Your task to perform on an android device: Go to location settings Image 0: 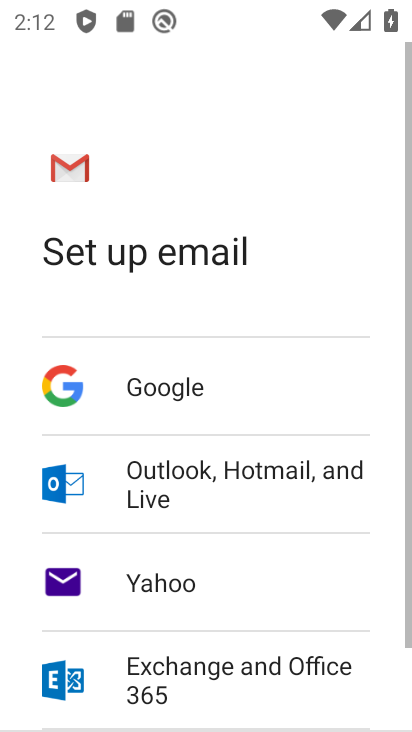
Step 0: press home button
Your task to perform on an android device: Go to location settings Image 1: 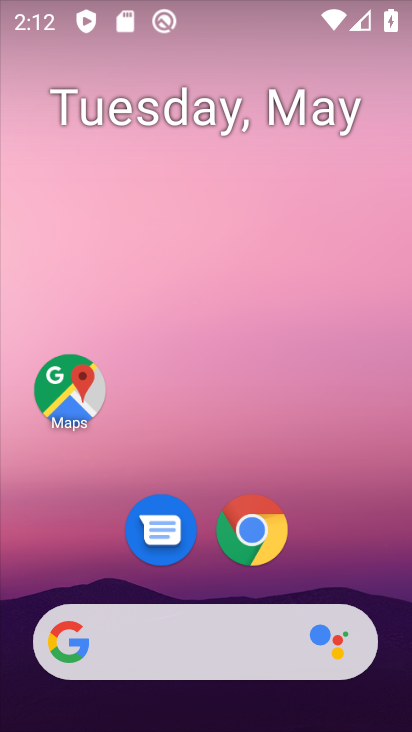
Step 1: drag from (206, 571) to (186, 153)
Your task to perform on an android device: Go to location settings Image 2: 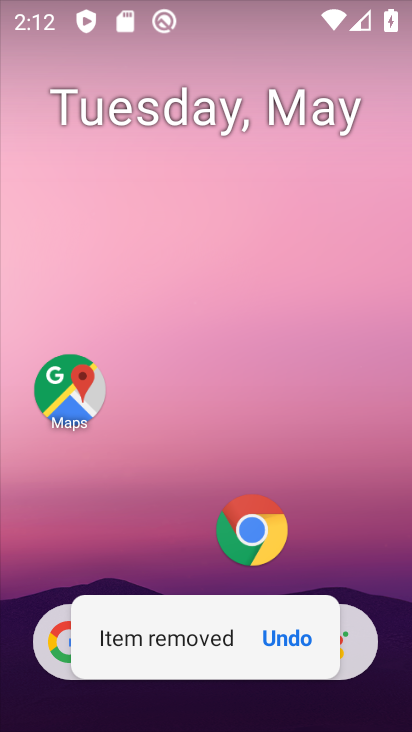
Step 2: drag from (344, 563) to (346, 84)
Your task to perform on an android device: Go to location settings Image 3: 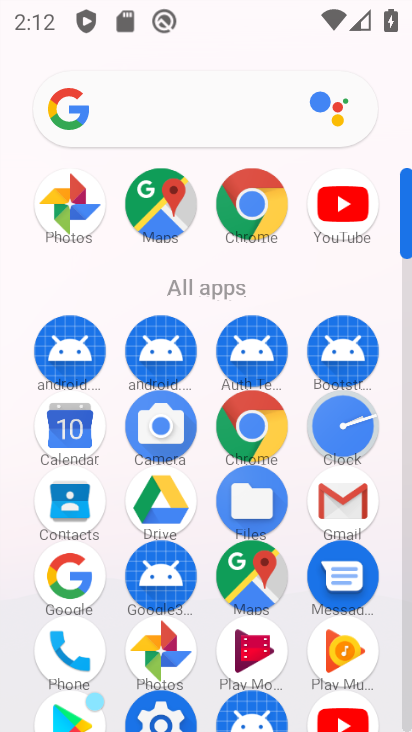
Step 3: click (171, 707)
Your task to perform on an android device: Go to location settings Image 4: 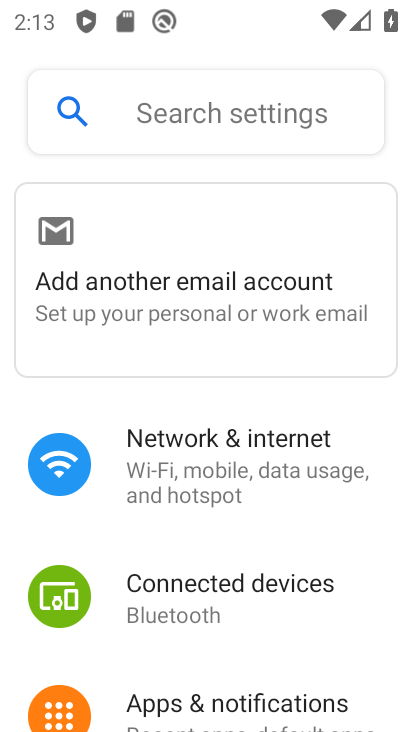
Step 4: drag from (240, 669) to (216, 386)
Your task to perform on an android device: Go to location settings Image 5: 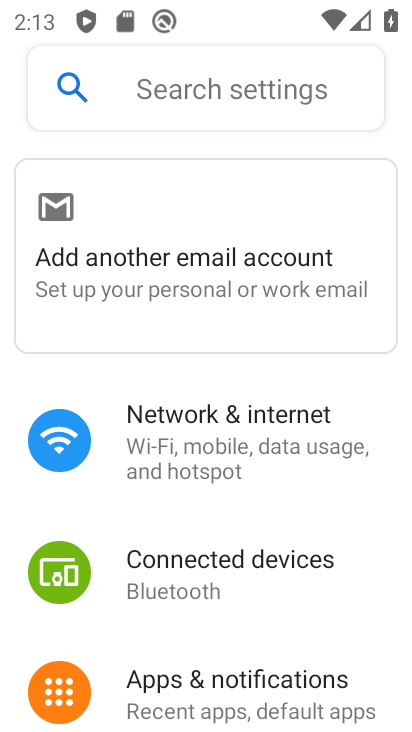
Step 5: drag from (216, 138) to (214, 51)
Your task to perform on an android device: Go to location settings Image 6: 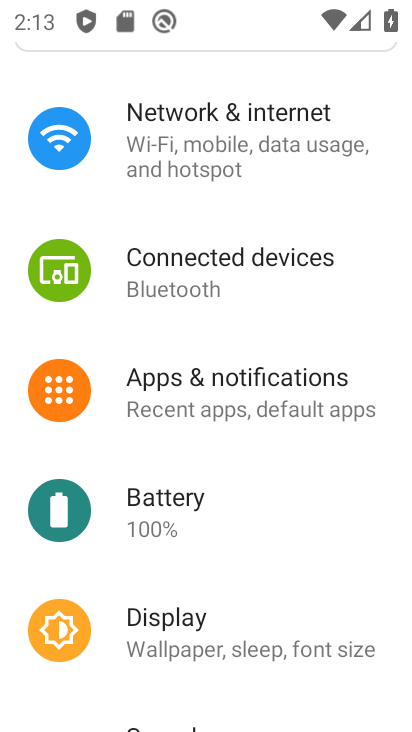
Step 6: drag from (240, 672) to (225, 184)
Your task to perform on an android device: Go to location settings Image 7: 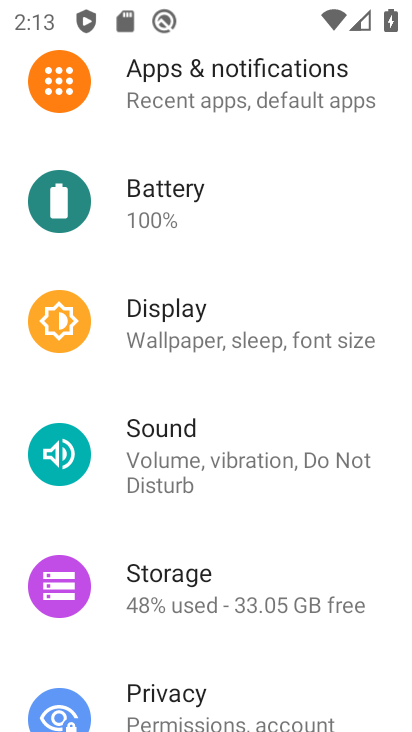
Step 7: drag from (221, 669) to (226, 252)
Your task to perform on an android device: Go to location settings Image 8: 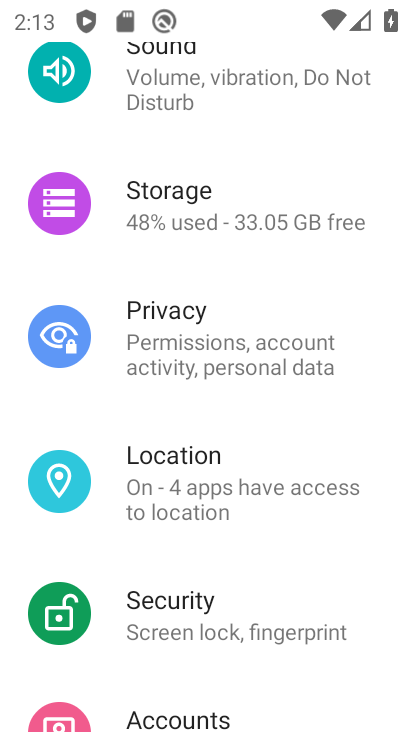
Step 8: click (200, 466)
Your task to perform on an android device: Go to location settings Image 9: 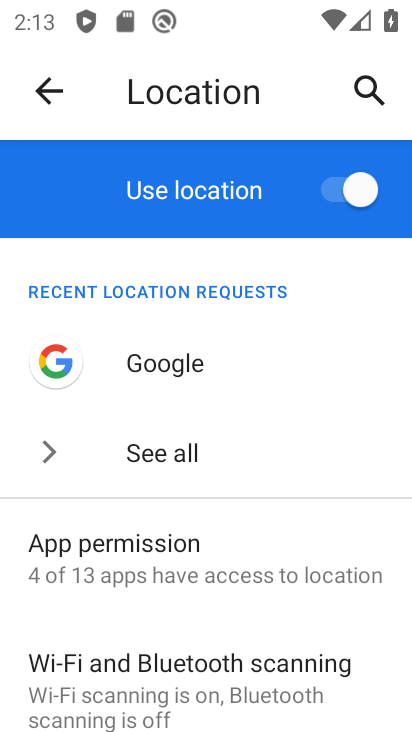
Step 9: drag from (199, 670) to (194, 282)
Your task to perform on an android device: Go to location settings Image 10: 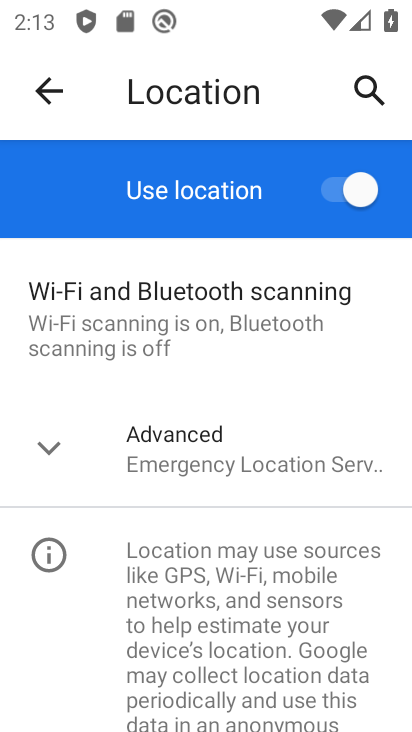
Step 10: click (50, 431)
Your task to perform on an android device: Go to location settings Image 11: 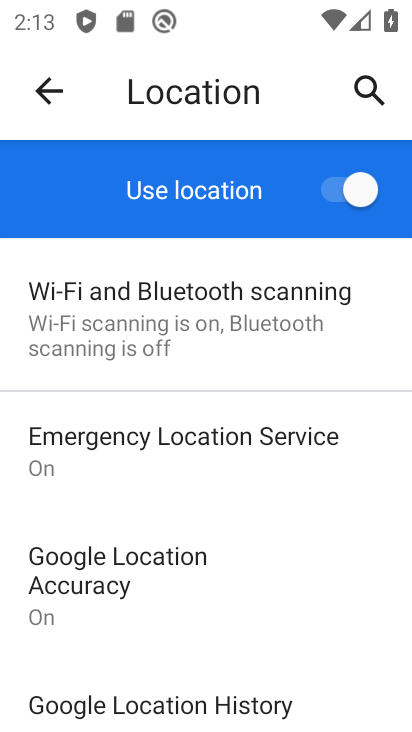
Step 11: drag from (236, 635) to (225, 475)
Your task to perform on an android device: Go to location settings Image 12: 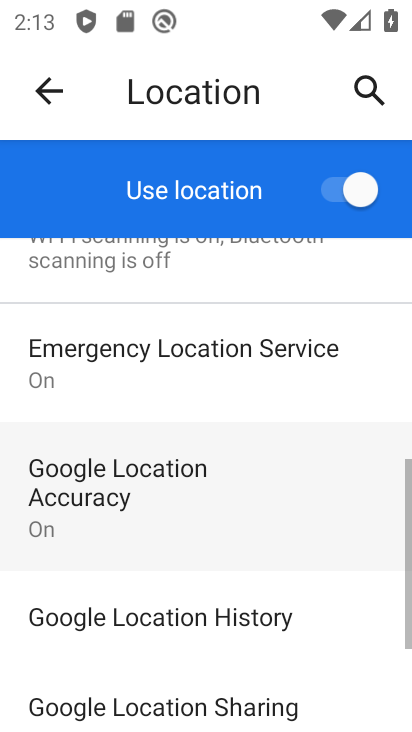
Step 12: click (225, 377)
Your task to perform on an android device: Go to location settings Image 13: 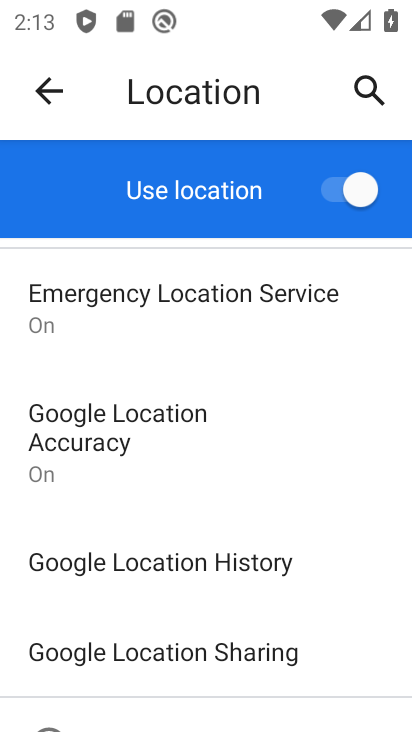
Step 13: task complete